Your task to perform on an android device: set the timer Image 0: 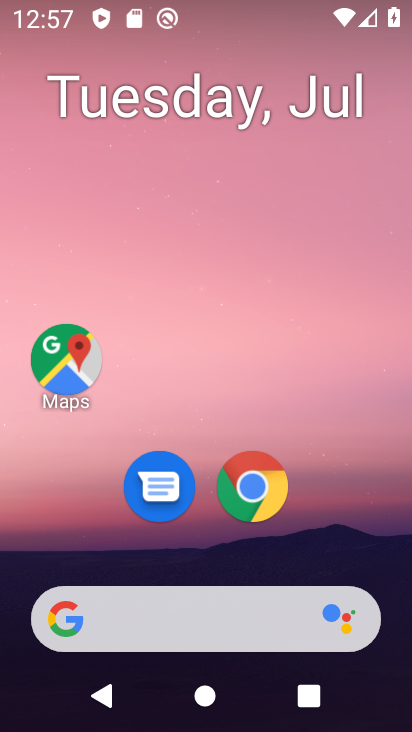
Step 0: drag from (350, 549) to (368, 69)
Your task to perform on an android device: set the timer Image 1: 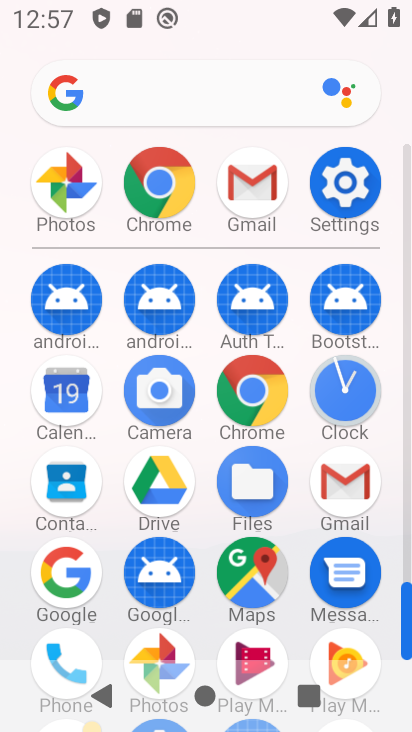
Step 1: click (353, 394)
Your task to perform on an android device: set the timer Image 2: 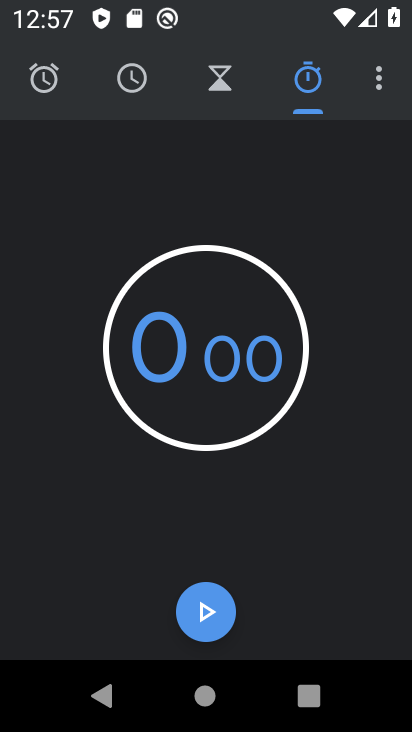
Step 2: click (54, 84)
Your task to perform on an android device: set the timer Image 3: 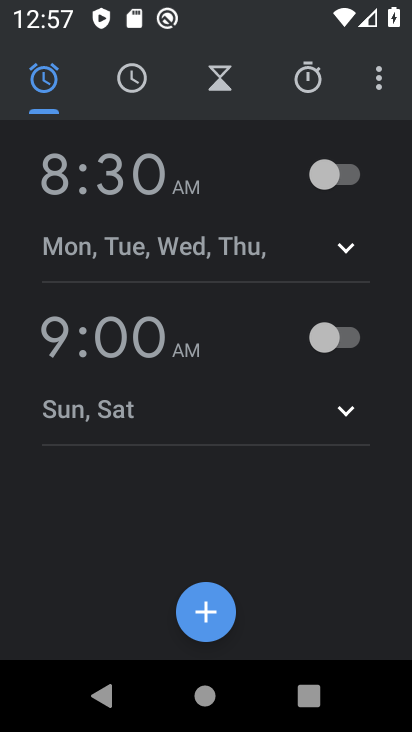
Step 3: click (204, 605)
Your task to perform on an android device: set the timer Image 4: 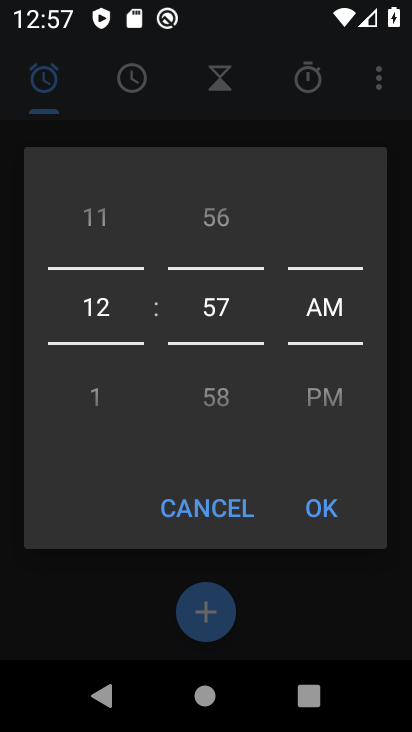
Step 4: click (308, 504)
Your task to perform on an android device: set the timer Image 5: 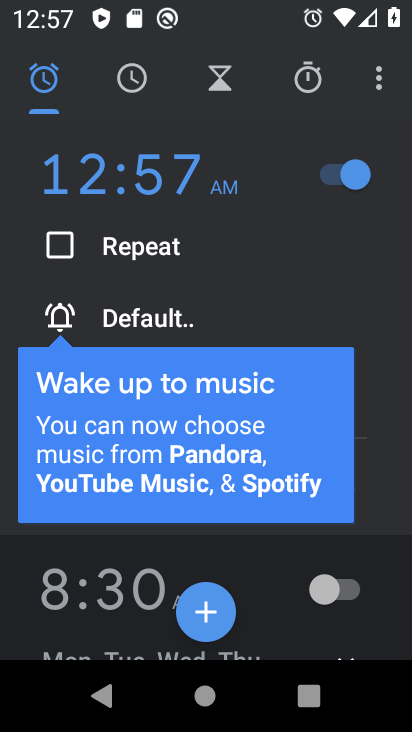
Step 5: task complete